Your task to perform on an android device: Open sound settings Image 0: 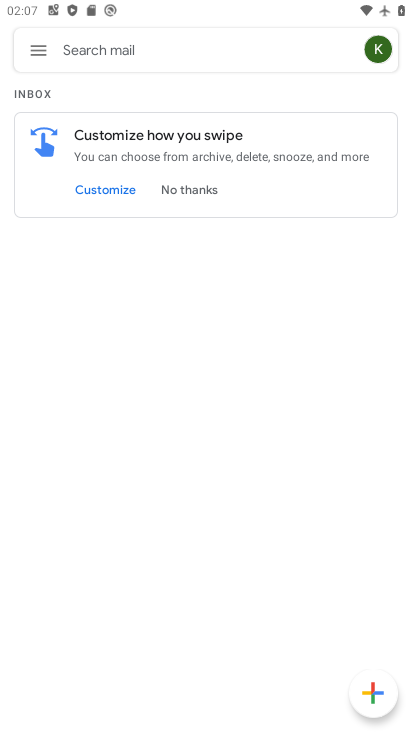
Step 0: press home button
Your task to perform on an android device: Open sound settings Image 1: 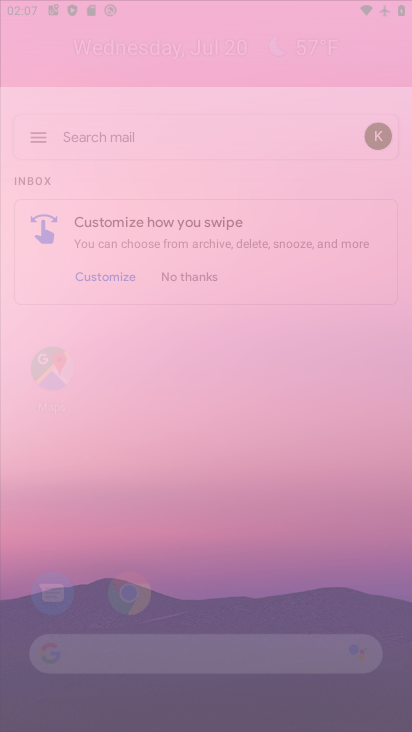
Step 1: press home button
Your task to perform on an android device: Open sound settings Image 2: 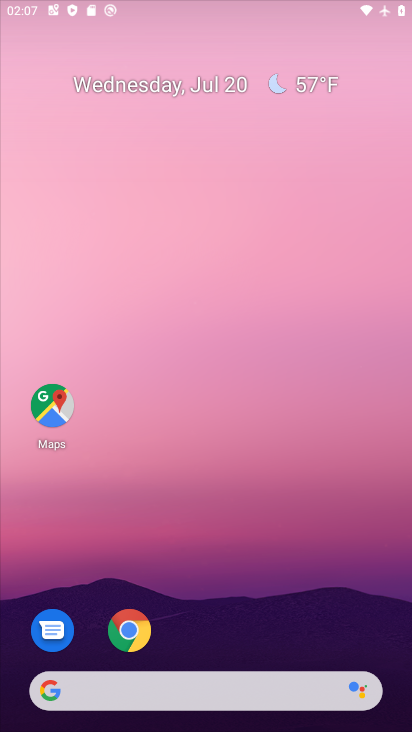
Step 2: press home button
Your task to perform on an android device: Open sound settings Image 3: 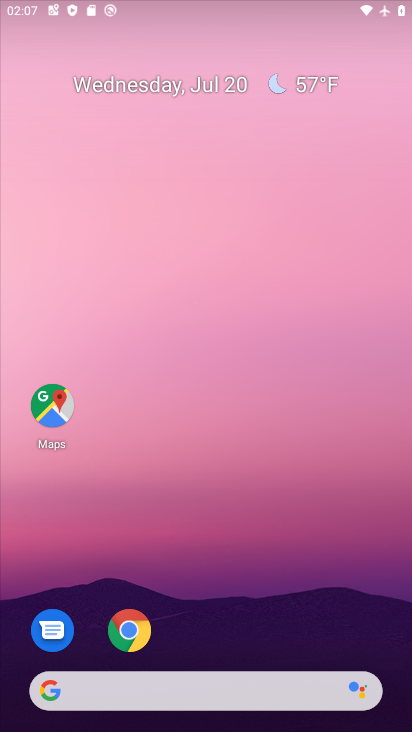
Step 3: drag from (260, 206) to (250, 103)
Your task to perform on an android device: Open sound settings Image 4: 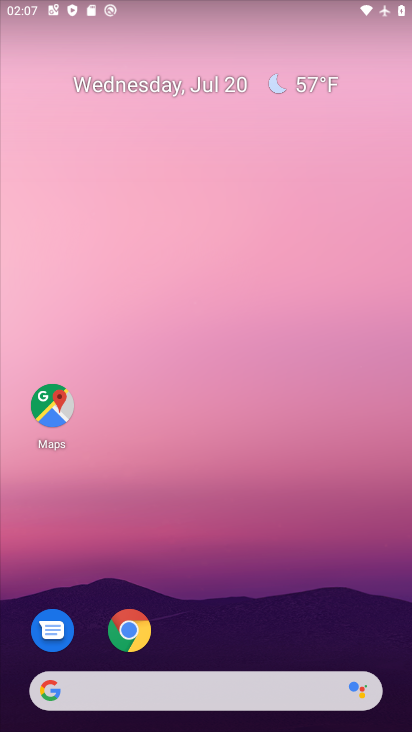
Step 4: drag from (265, 582) to (241, 24)
Your task to perform on an android device: Open sound settings Image 5: 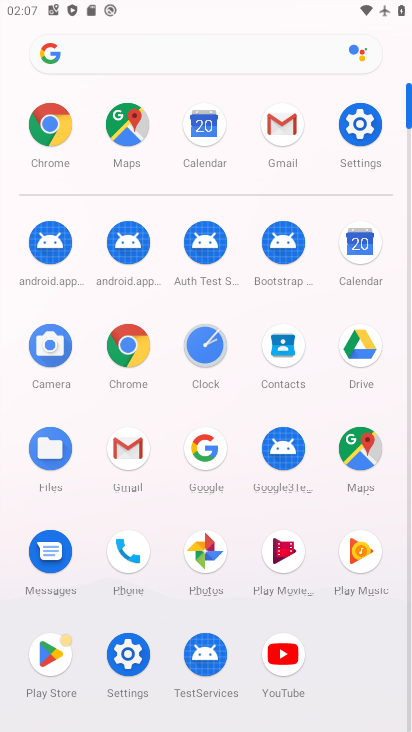
Step 5: click (348, 118)
Your task to perform on an android device: Open sound settings Image 6: 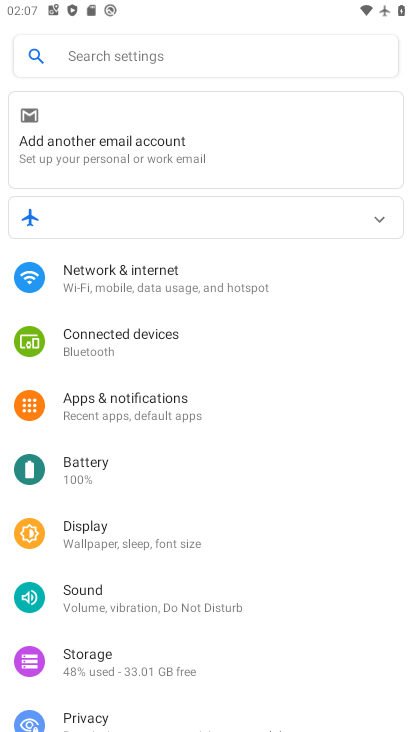
Step 6: click (123, 608)
Your task to perform on an android device: Open sound settings Image 7: 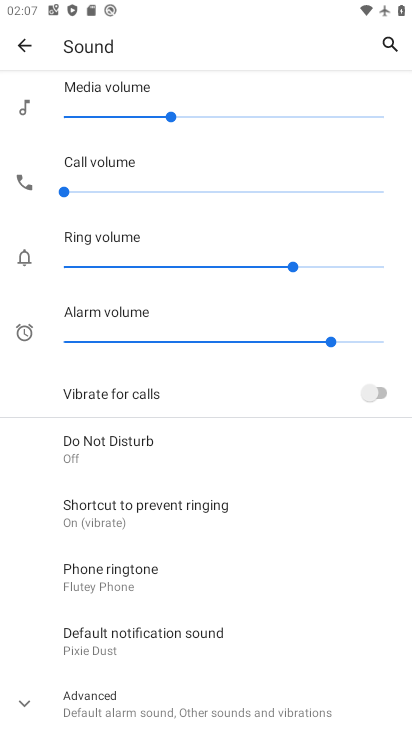
Step 7: task complete